Your task to perform on an android device: Go to Amazon Image 0: 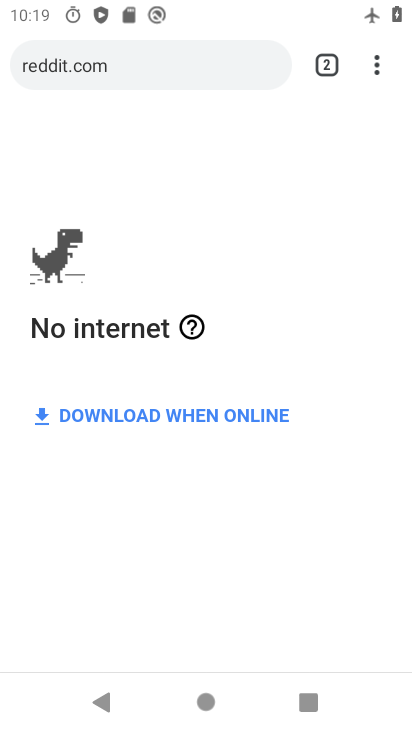
Step 0: press home button
Your task to perform on an android device: Go to Amazon Image 1: 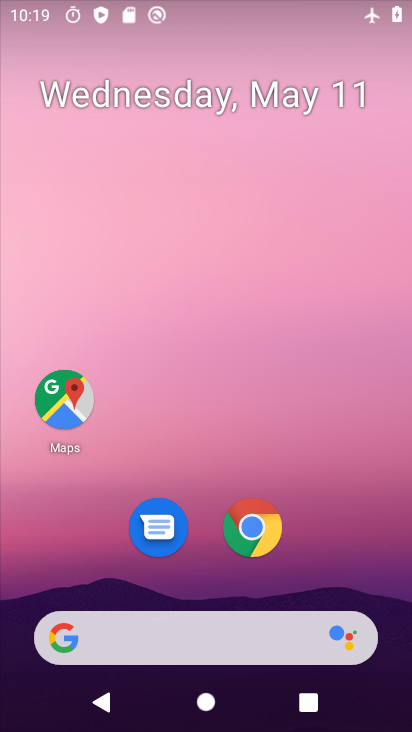
Step 1: drag from (180, 657) to (273, 228)
Your task to perform on an android device: Go to Amazon Image 2: 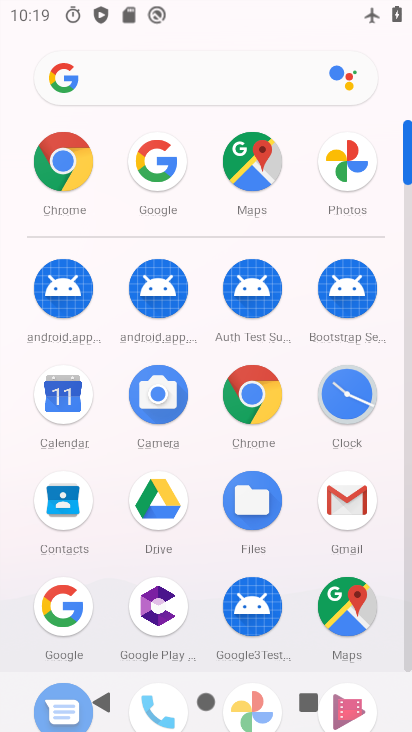
Step 2: drag from (230, 462) to (289, 295)
Your task to perform on an android device: Go to Amazon Image 3: 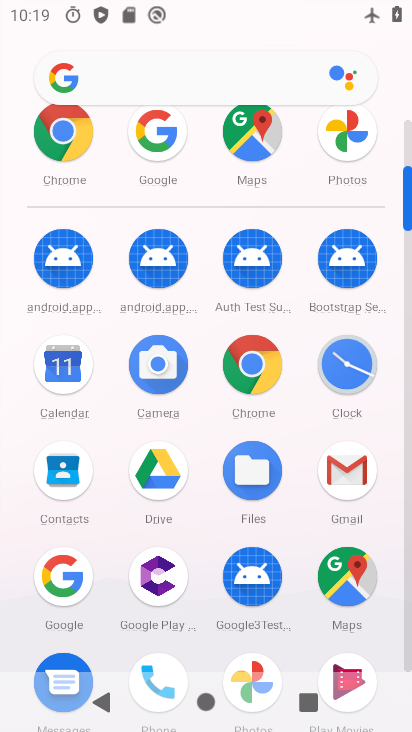
Step 3: drag from (256, 476) to (254, 433)
Your task to perform on an android device: Go to Amazon Image 4: 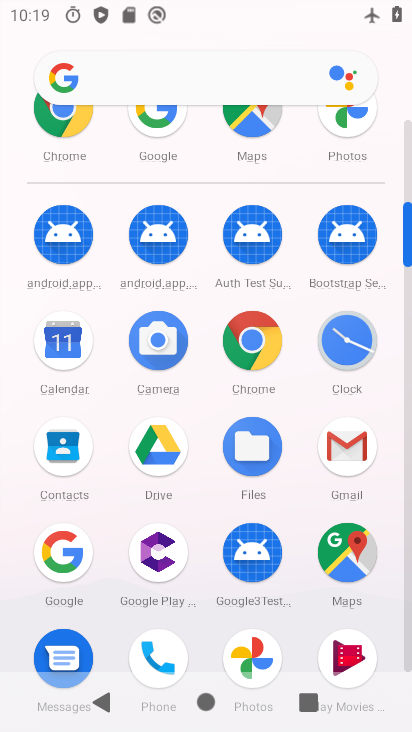
Step 4: click (241, 368)
Your task to perform on an android device: Go to Amazon Image 5: 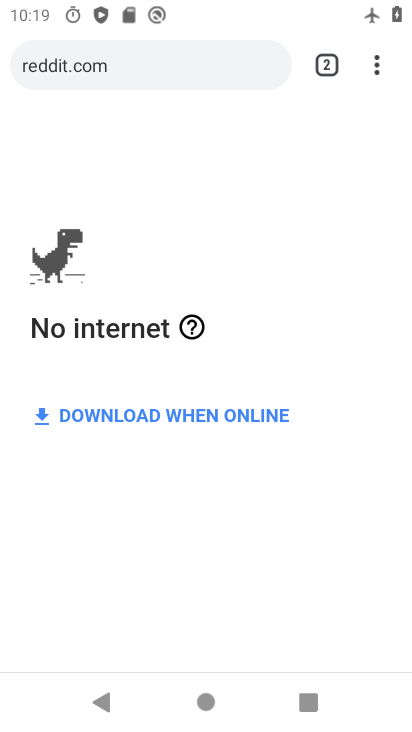
Step 5: click (234, 72)
Your task to perform on an android device: Go to Amazon Image 6: 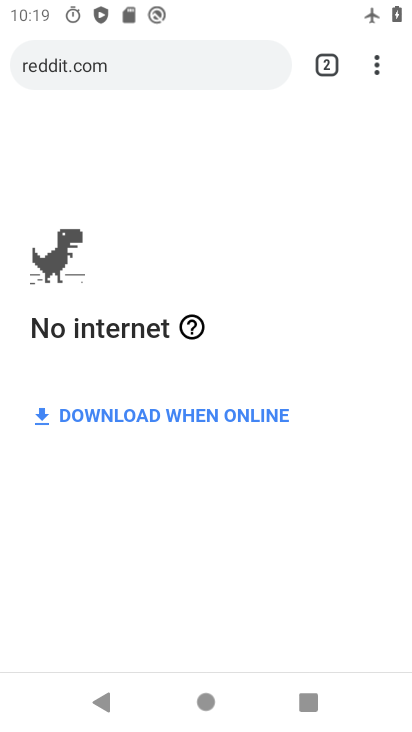
Step 6: click (234, 72)
Your task to perform on an android device: Go to Amazon Image 7: 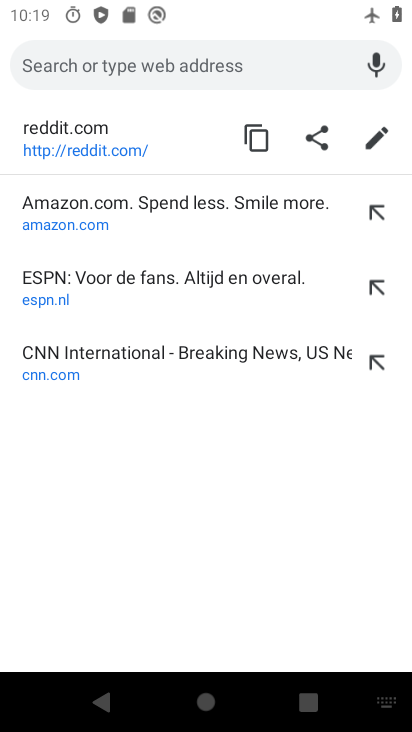
Step 7: click (240, 225)
Your task to perform on an android device: Go to Amazon Image 8: 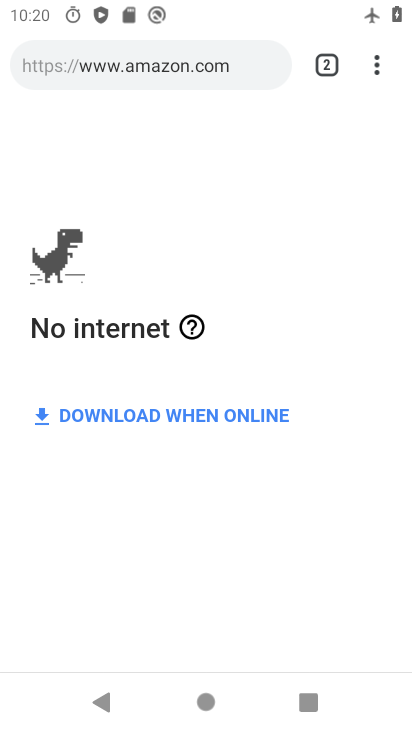
Step 8: task complete